Your task to perform on an android device: change the clock display to digital Image 0: 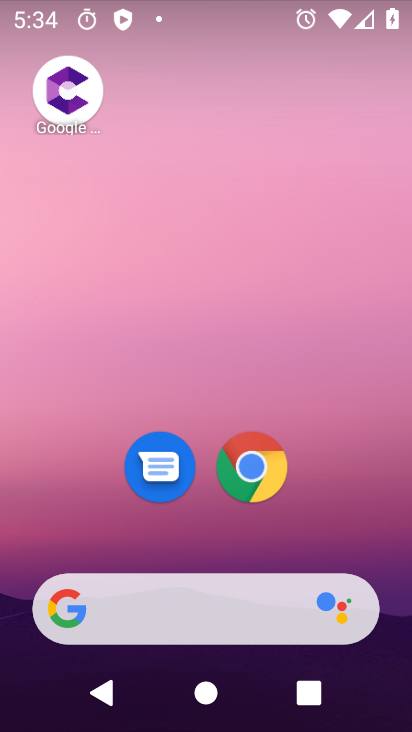
Step 0: drag from (334, 578) to (316, 0)
Your task to perform on an android device: change the clock display to digital Image 1: 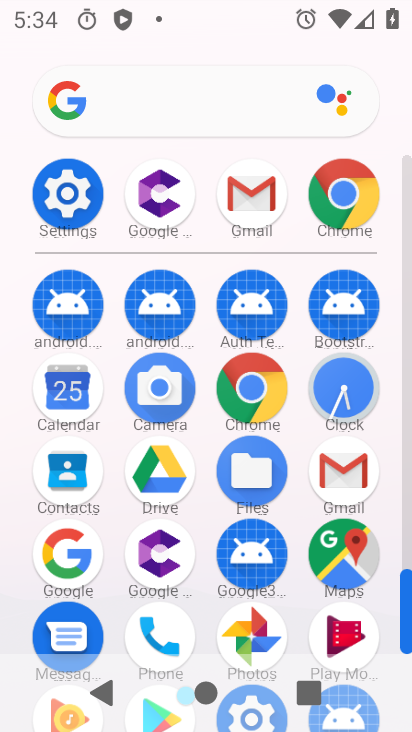
Step 1: click (361, 387)
Your task to perform on an android device: change the clock display to digital Image 2: 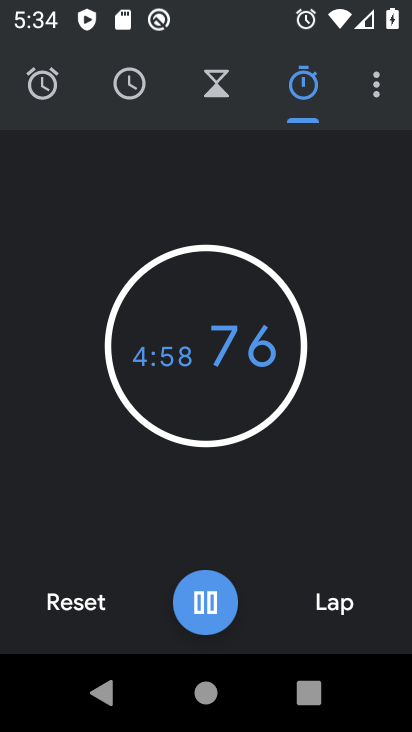
Step 2: task complete